Your task to perform on an android device: turn on priority inbox in the gmail app Image 0: 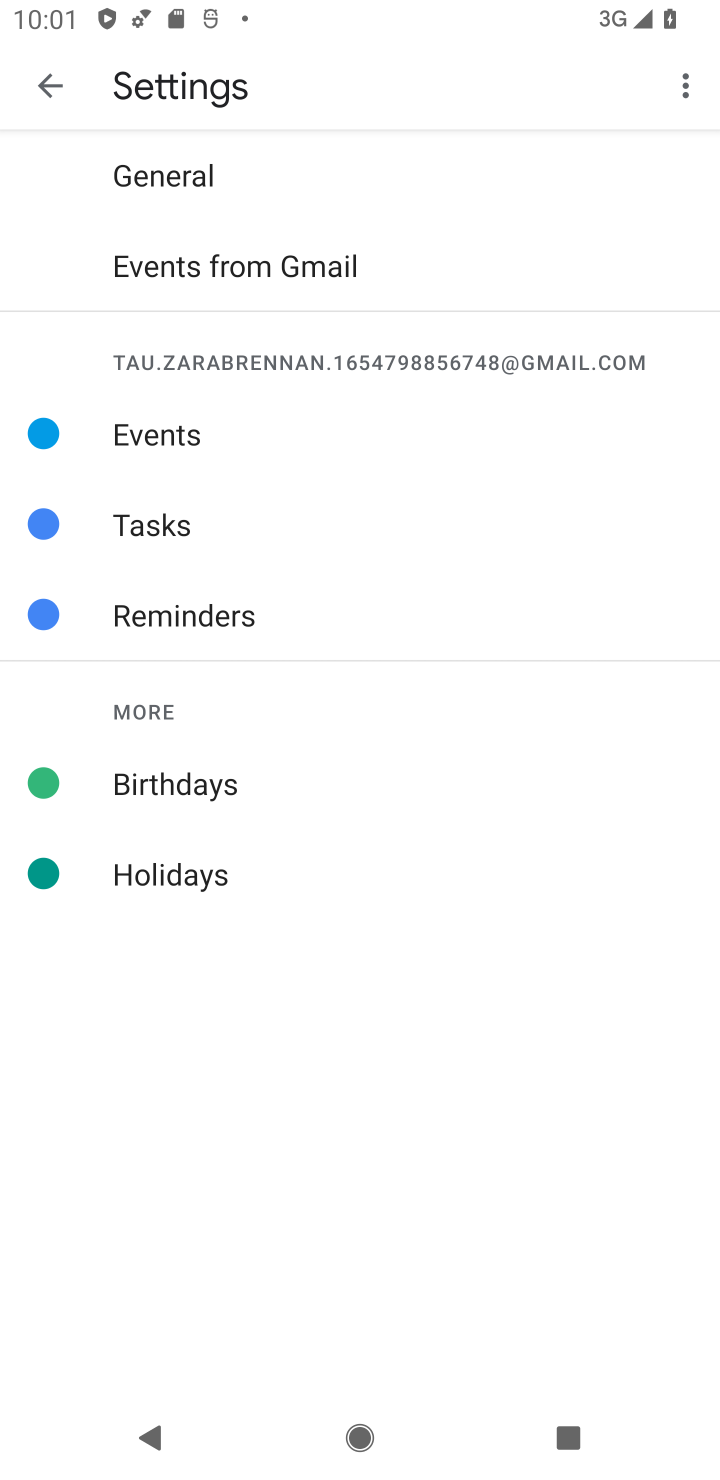
Step 0: press home button
Your task to perform on an android device: turn on priority inbox in the gmail app Image 1: 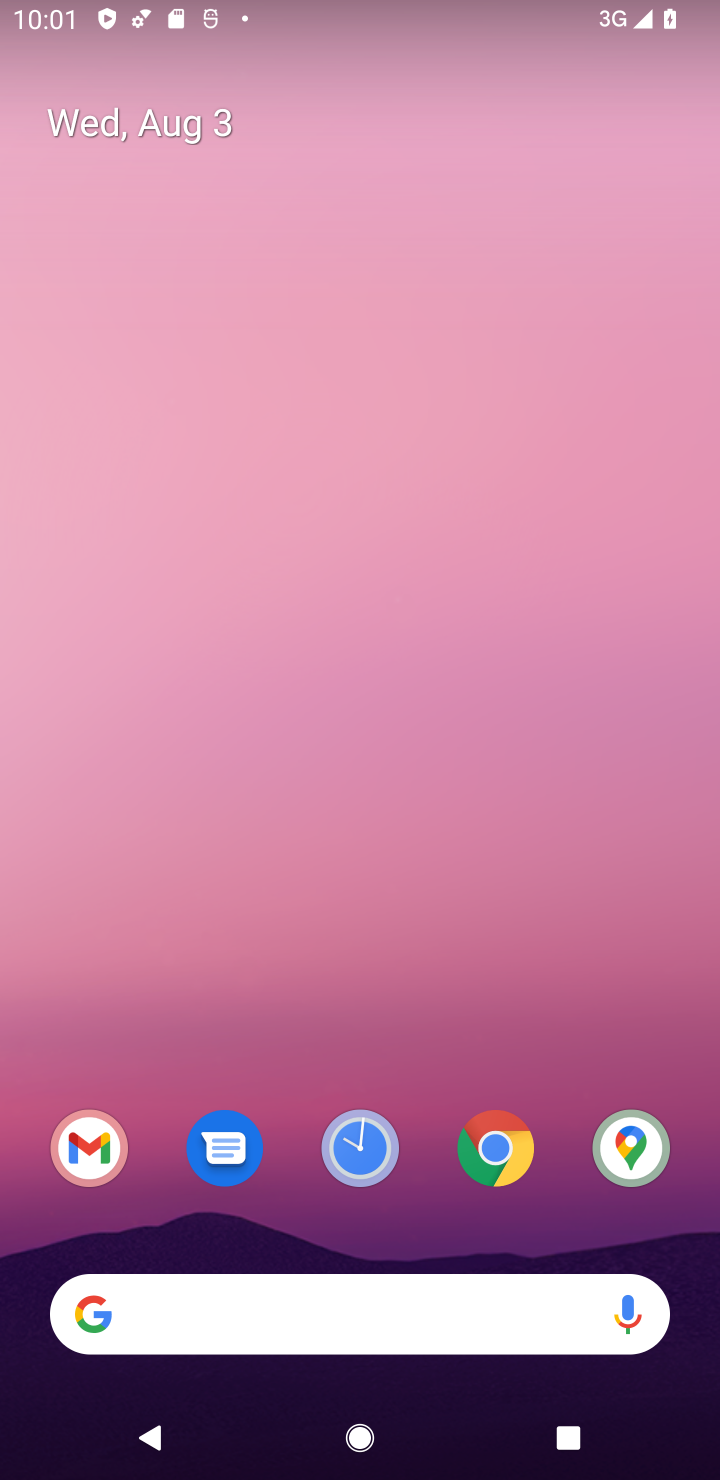
Step 1: drag from (359, 1023) to (351, 223)
Your task to perform on an android device: turn on priority inbox in the gmail app Image 2: 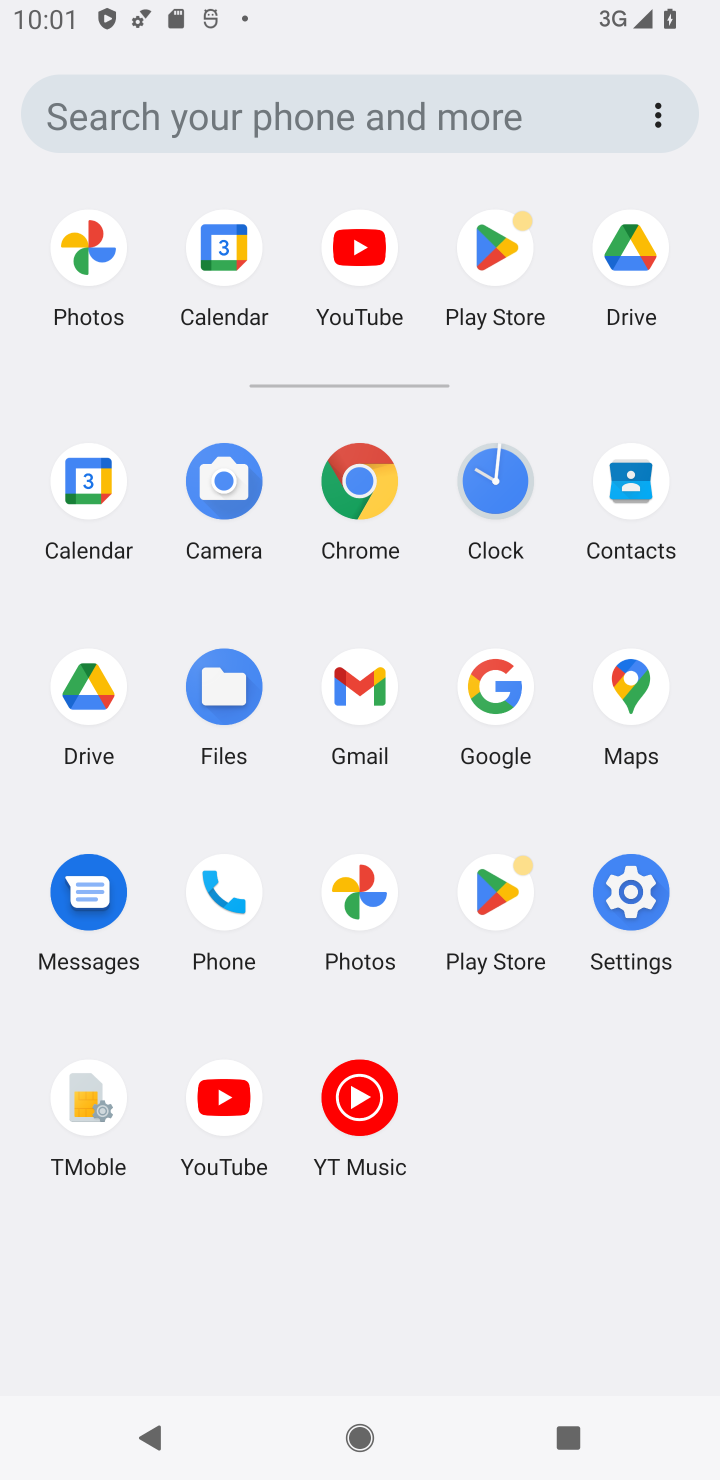
Step 2: click (350, 677)
Your task to perform on an android device: turn on priority inbox in the gmail app Image 3: 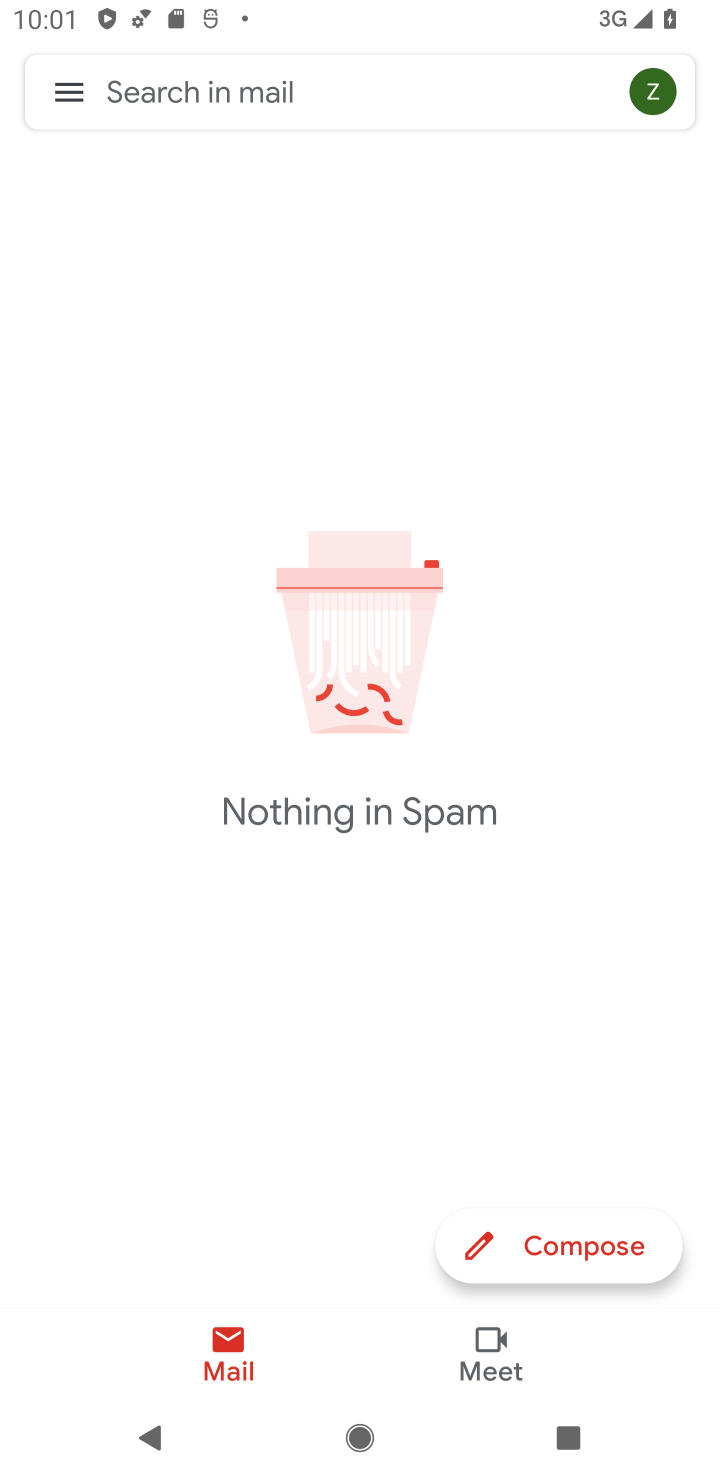
Step 3: click (85, 81)
Your task to perform on an android device: turn on priority inbox in the gmail app Image 4: 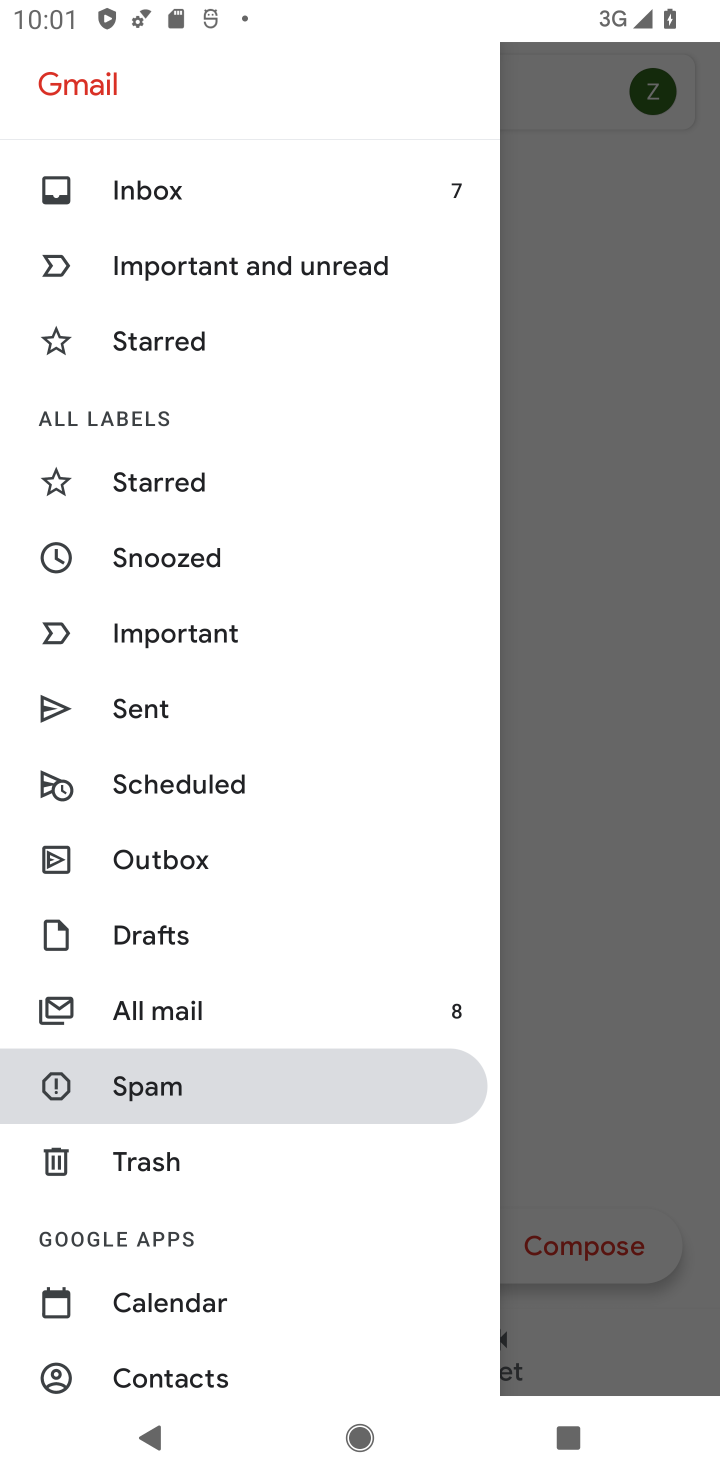
Step 4: click (660, 621)
Your task to perform on an android device: turn on priority inbox in the gmail app Image 5: 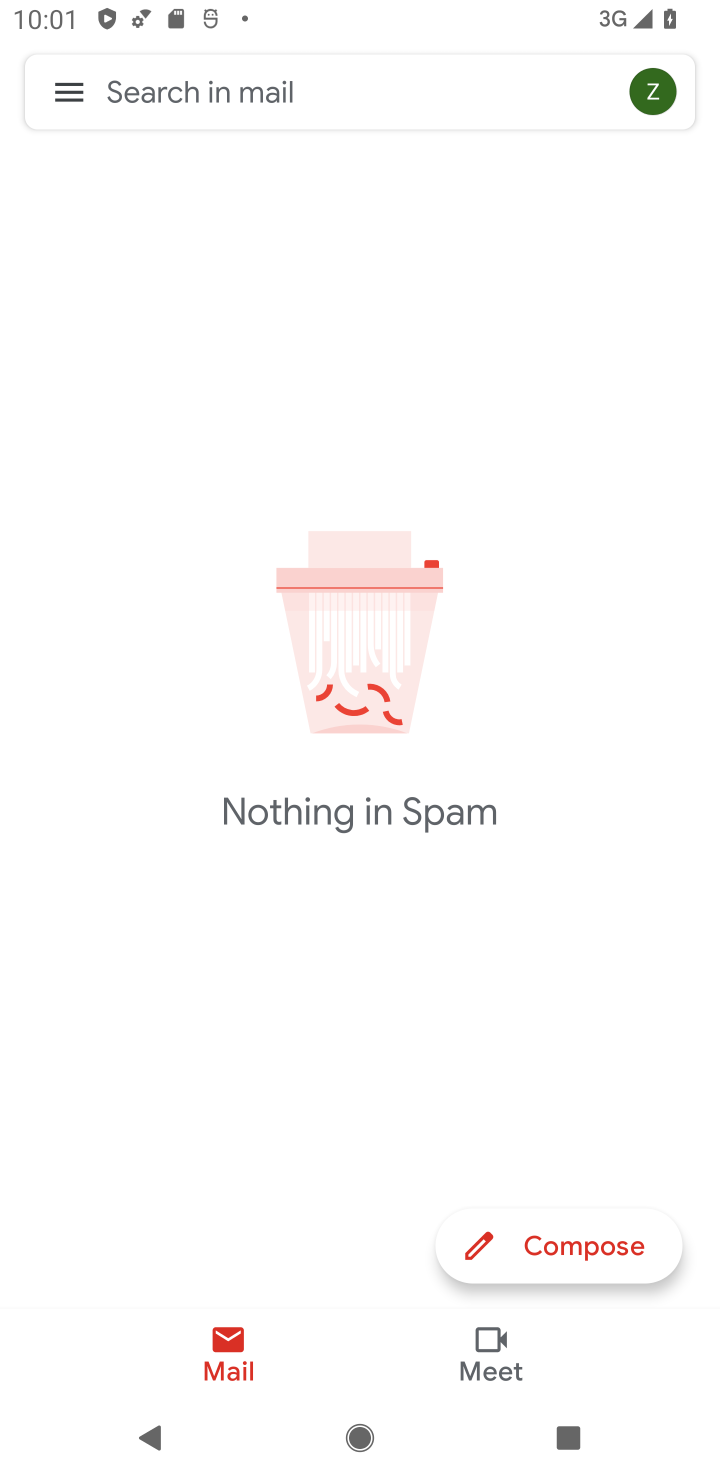
Step 5: task complete